Your task to perform on an android device: Go to Wikipedia Image 0: 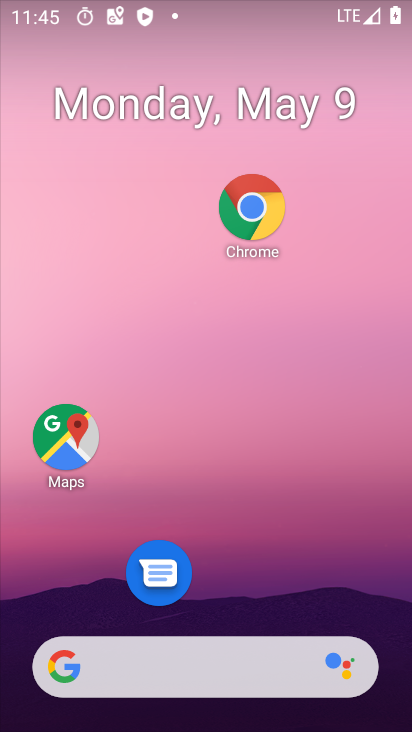
Step 0: drag from (282, 590) to (295, 61)
Your task to perform on an android device: Go to Wikipedia Image 1: 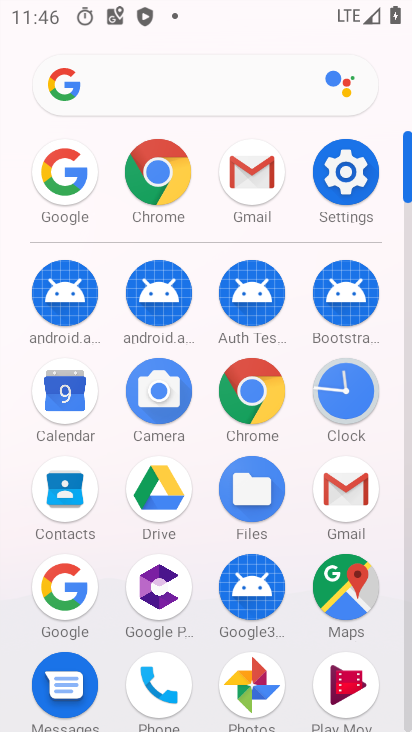
Step 1: click (255, 423)
Your task to perform on an android device: Go to Wikipedia Image 2: 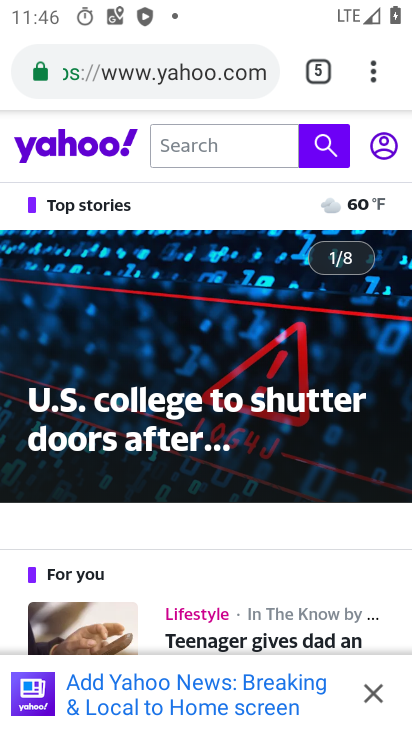
Step 2: click (183, 78)
Your task to perform on an android device: Go to Wikipedia Image 3: 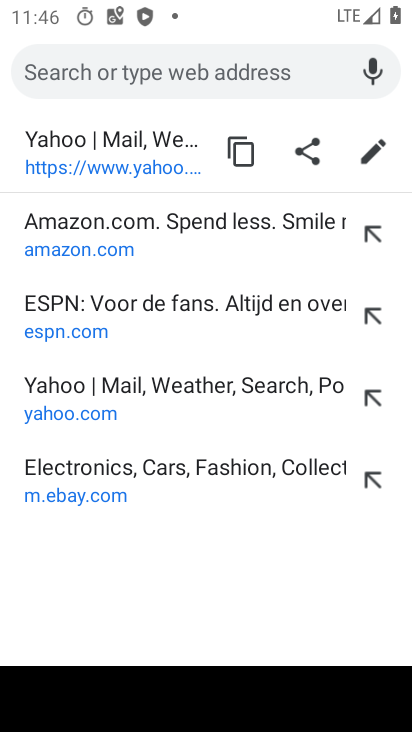
Step 3: type "wikipedia"
Your task to perform on an android device: Go to Wikipedia Image 4: 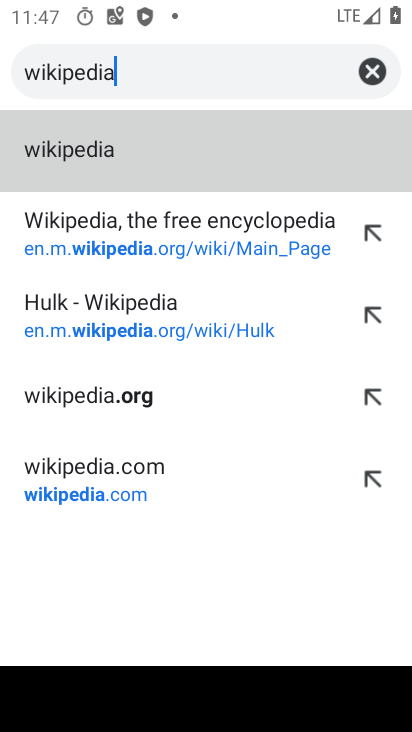
Step 4: click (130, 488)
Your task to perform on an android device: Go to Wikipedia Image 5: 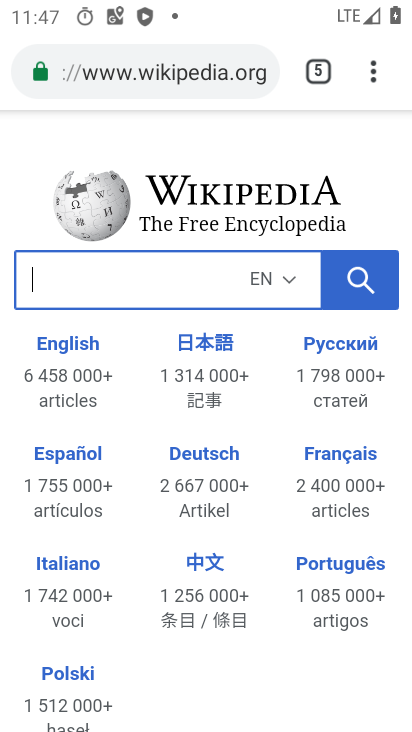
Step 5: task complete